Your task to perform on an android device: toggle improve location accuracy Image 0: 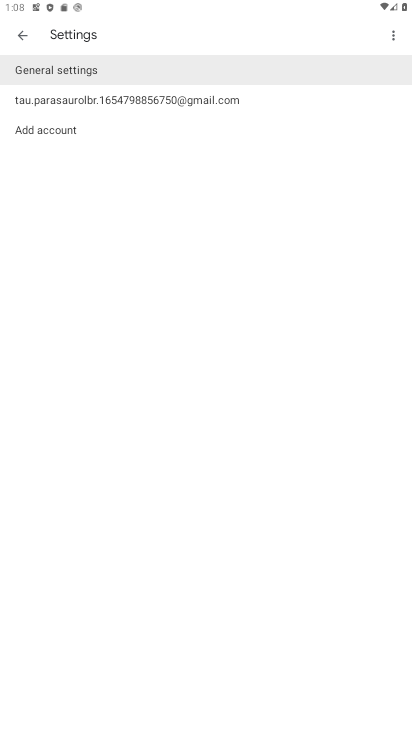
Step 0: press home button
Your task to perform on an android device: toggle improve location accuracy Image 1: 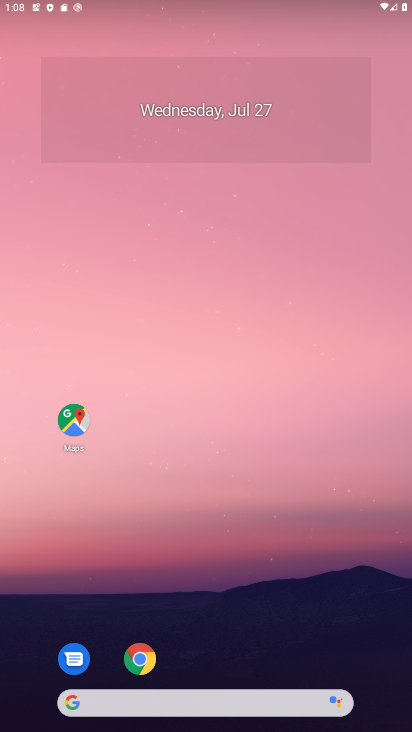
Step 1: drag from (332, 607) to (282, 8)
Your task to perform on an android device: toggle improve location accuracy Image 2: 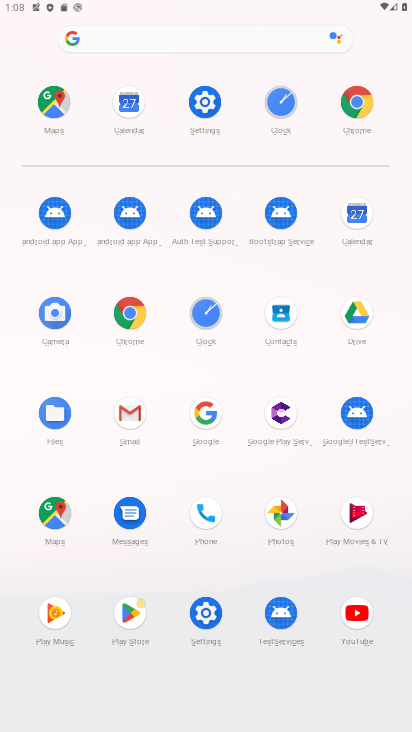
Step 2: click (198, 101)
Your task to perform on an android device: toggle improve location accuracy Image 3: 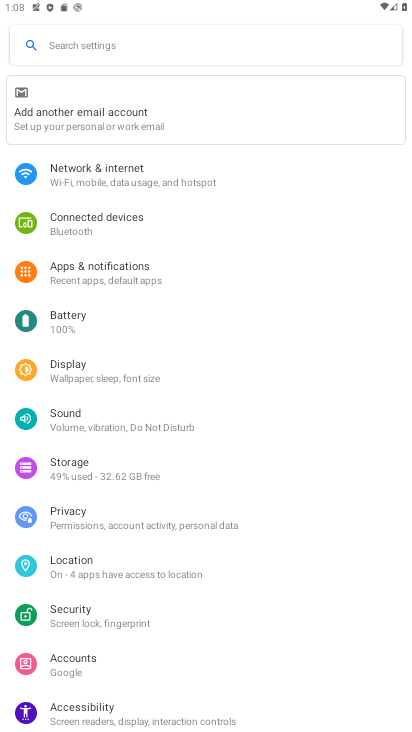
Step 3: click (117, 568)
Your task to perform on an android device: toggle improve location accuracy Image 4: 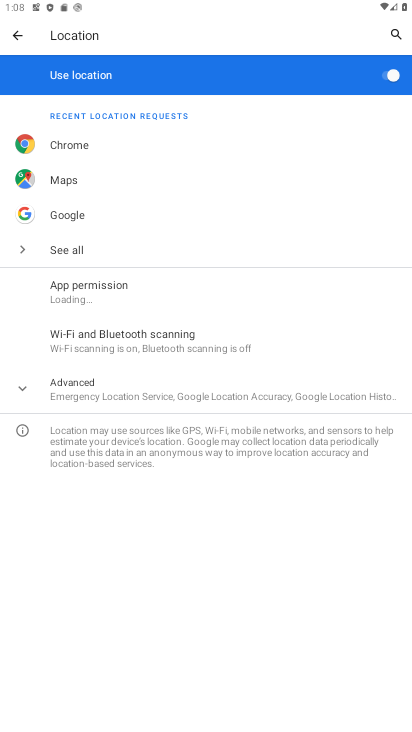
Step 4: click (108, 411)
Your task to perform on an android device: toggle improve location accuracy Image 5: 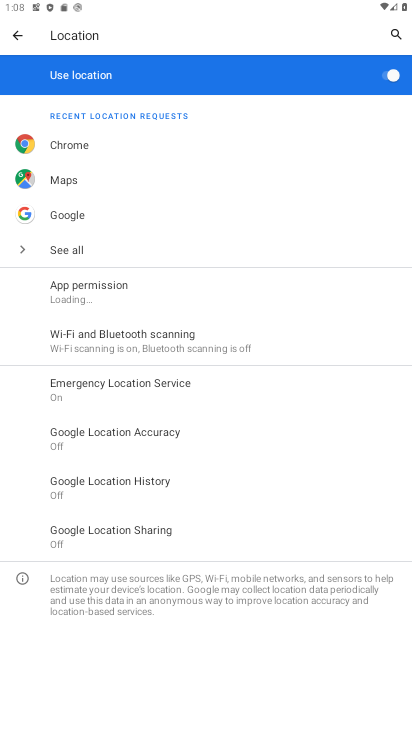
Step 5: click (141, 442)
Your task to perform on an android device: toggle improve location accuracy Image 6: 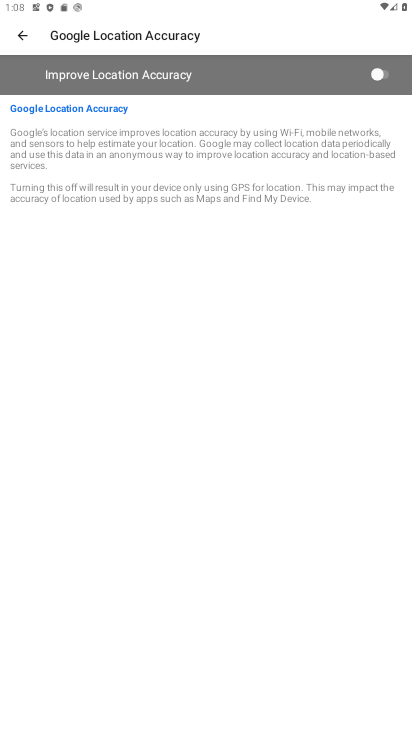
Step 6: click (309, 68)
Your task to perform on an android device: toggle improve location accuracy Image 7: 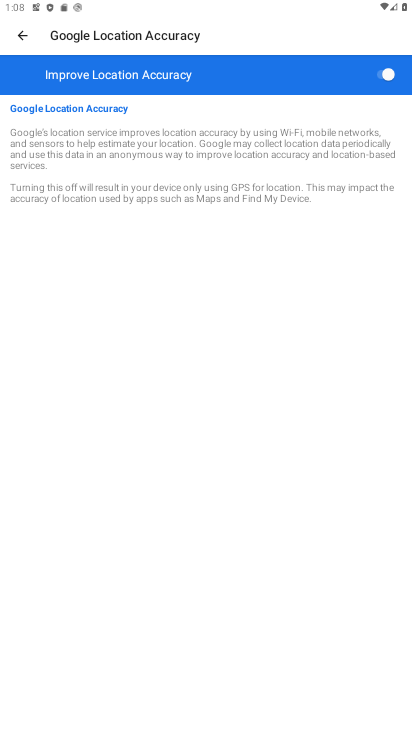
Step 7: task complete